Your task to perform on an android device: Search for vegetarian restaurants on Maps Image 0: 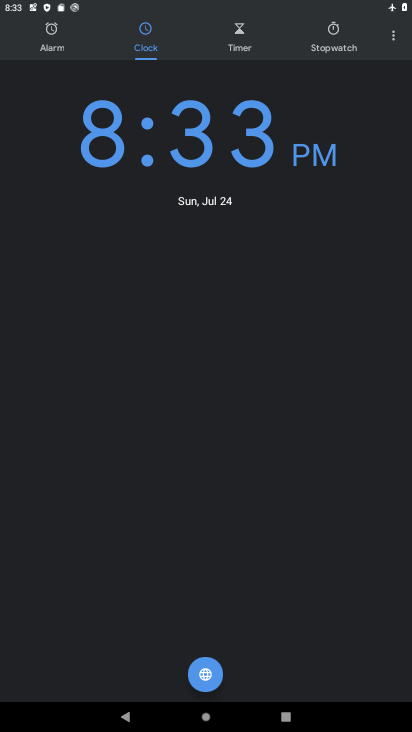
Step 0: press home button
Your task to perform on an android device: Search for vegetarian restaurants on Maps Image 1: 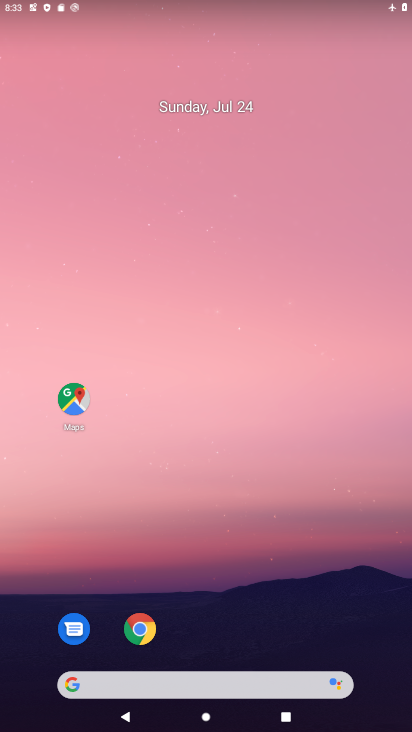
Step 1: drag from (195, 564) to (240, 242)
Your task to perform on an android device: Search for vegetarian restaurants on Maps Image 2: 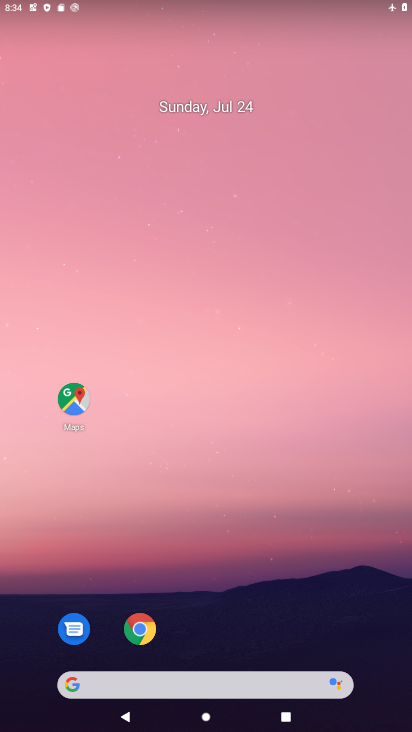
Step 2: drag from (231, 691) to (309, 183)
Your task to perform on an android device: Search for vegetarian restaurants on Maps Image 3: 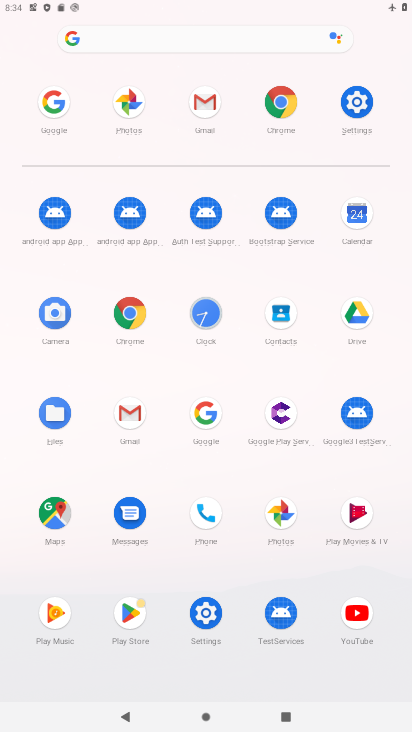
Step 3: click (53, 527)
Your task to perform on an android device: Search for vegetarian restaurants on Maps Image 4: 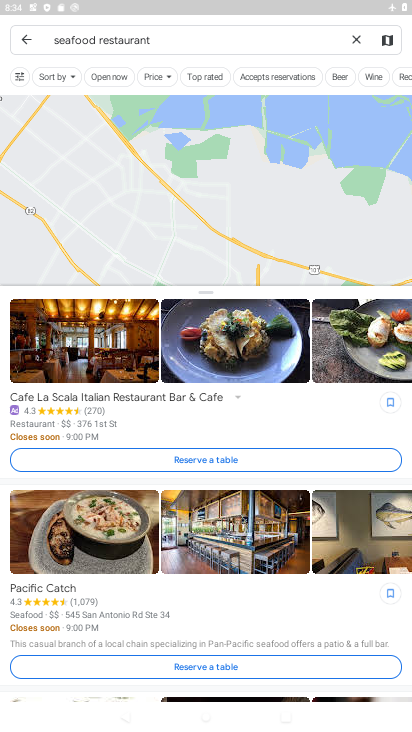
Step 4: click (352, 41)
Your task to perform on an android device: Search for vegetarian restaurants on Maps Image 5: 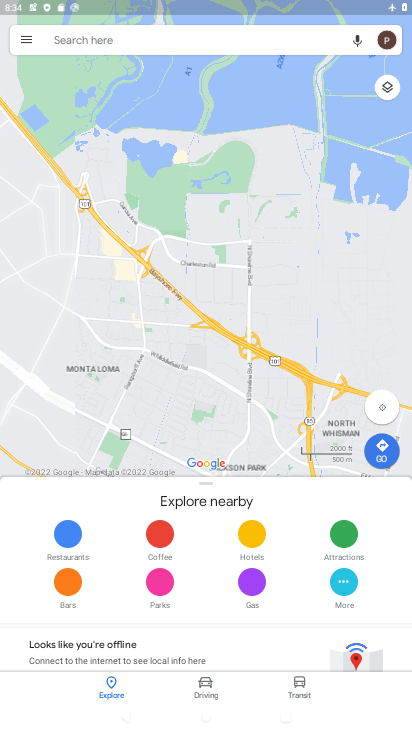
Step 5: click (279, 56)
Your task to perform on an android device: Search for vegetarian restaurants on Maps Image 6: 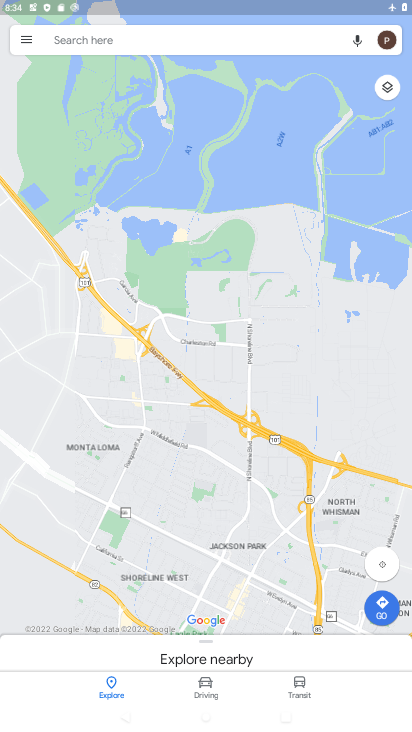
Step 6: click (220, 32)
Your task to perform on an android device: Search for vegetarian restaurants on Maps Image 7: 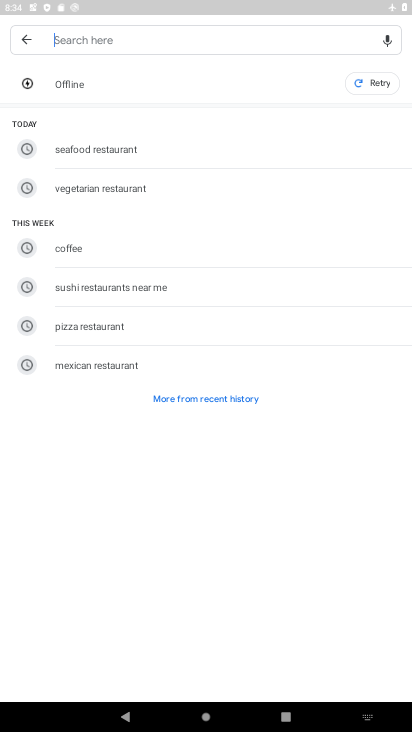
Step 7: click (105, 188)
Your task to perform on an android device: Search for vegetarian restaurants on Maps Image 8: 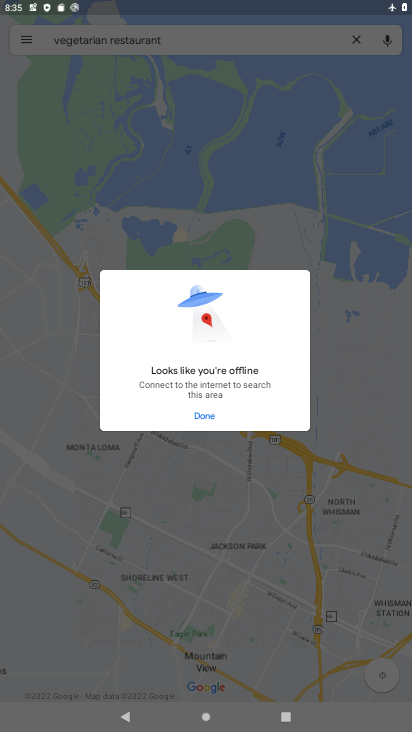
Step 8: click (211, 419)
Your task to perform on an android device: Search for vegetarian restaurants on Maps Image 9: 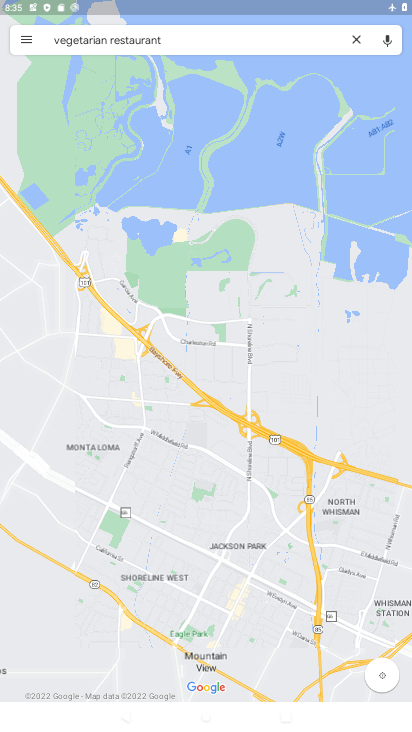
Step 9: task complete